Your task to perform on an android device: toggle wifi Image 0: 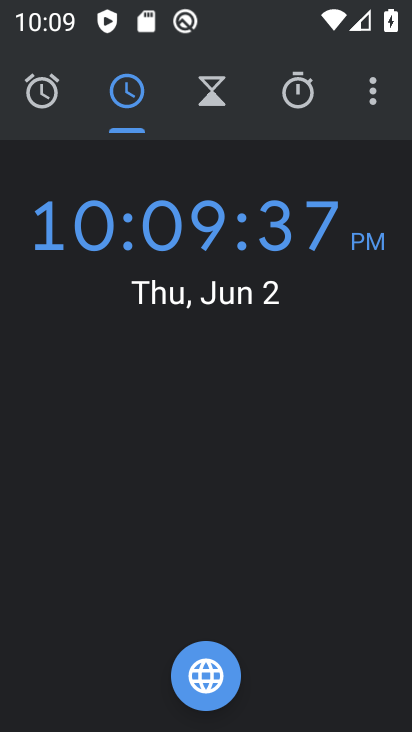
Step 0: press home button
Your task to perform on an android device: toggle wifi Image 1: 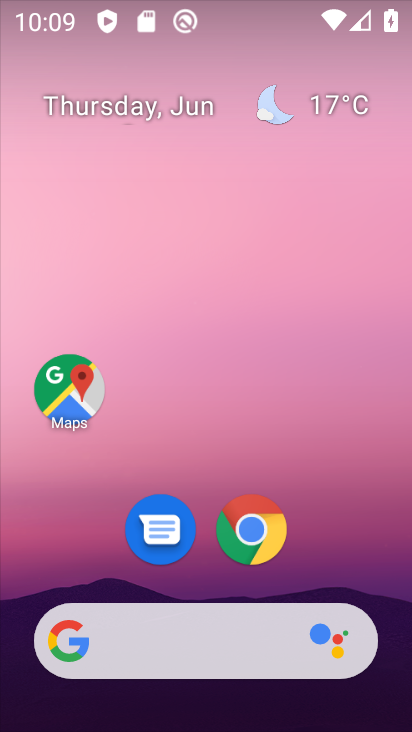
Step 1: drag from (340, 563) to (315, 4)
Your task to perform on an android device: toggle wifi Image 2: 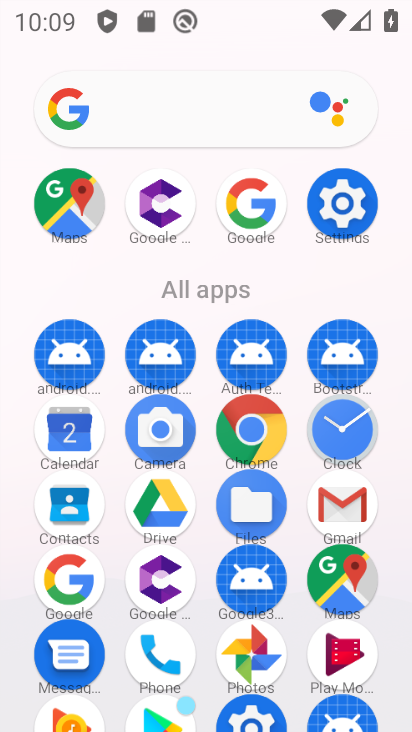
Step 2: click (354, 206)
Your task to perform on an android device: toggle wifi Image 3: 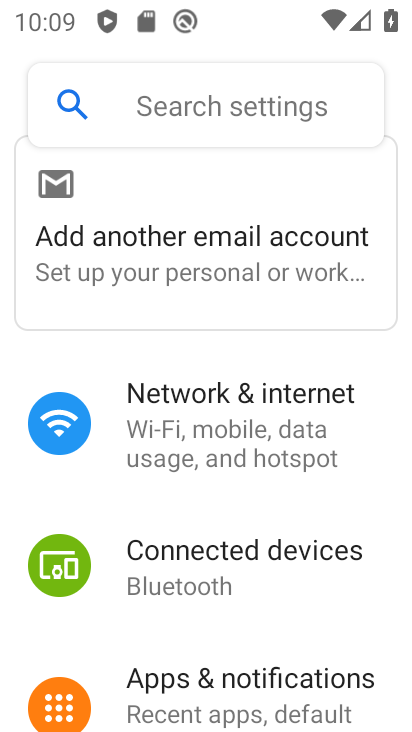
Step 3: click (217, 432)
Your task to perform on an android device: toggle wifi Image 4: 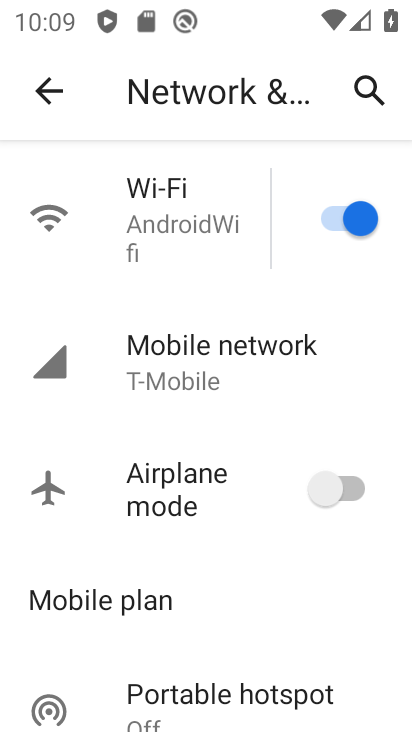
Step 4: click (327, 215)
Your task to perform on an android device: toggle wifi Image 5: 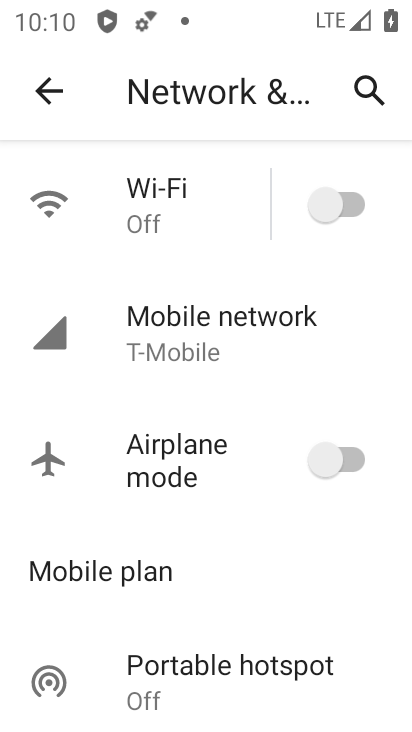
Step 5: task complete